Your task to perform on an android device: Open my contact list Image 0: 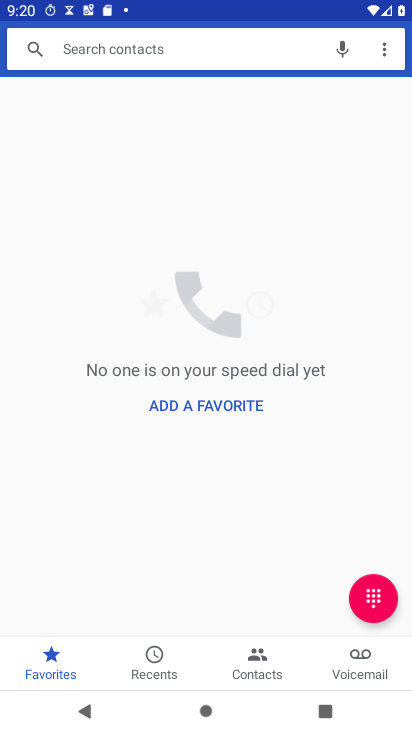
Step 0: press home button
Your task to perform on an android device: Open my contact list Image 1: 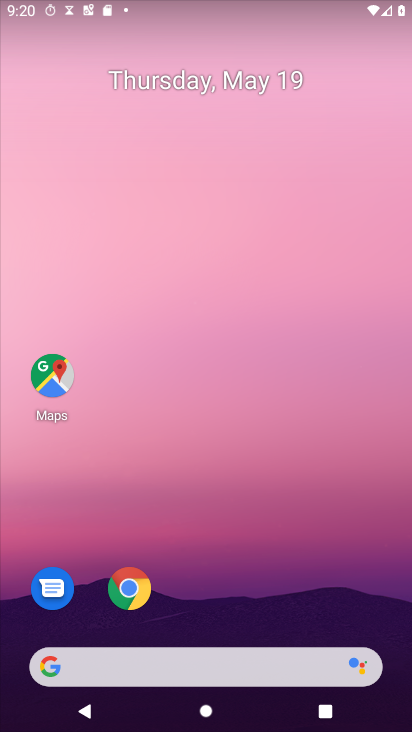
Step 1: drag from (172, 666) to (327, 136)
Your task to perform on an android device: Open my contact list Image 2: 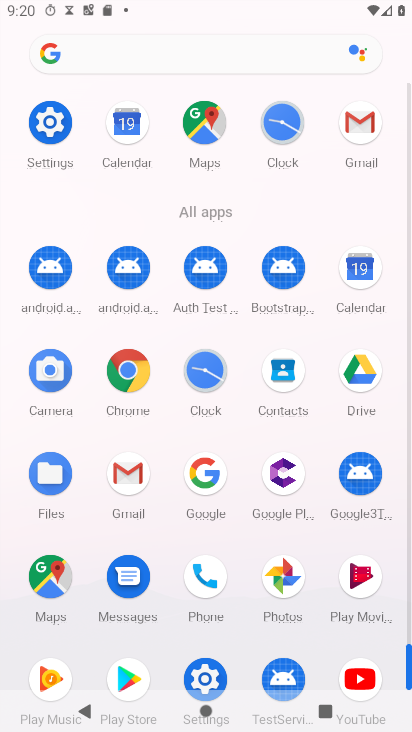
Step 2: click (285, 376)
Your task to perform on an android device: Open my contact list Image 3: 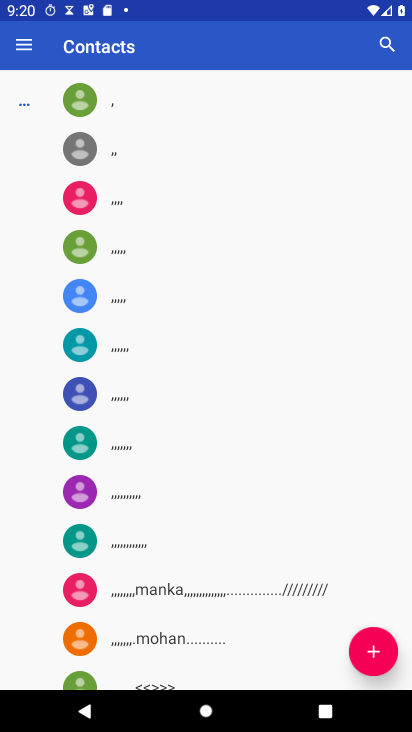
Step 3: task complete